Your task to perform on an android device: Open calendar and show me the first week of next month Image 0: 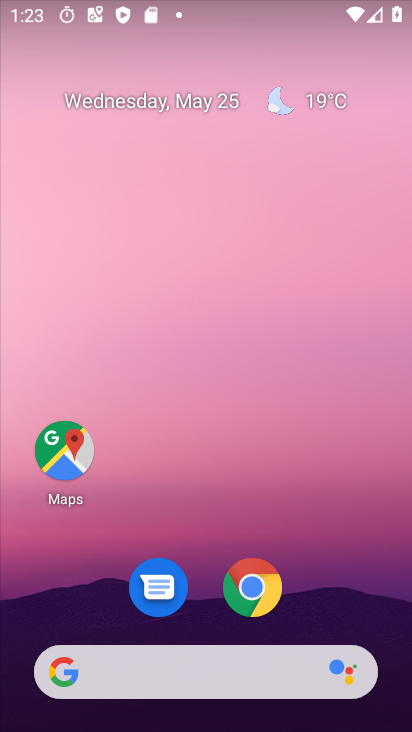
Step 0: drag from (210, 720) to (208, 65)
Your task to perform on an android device: Open calendar and show me the first week of next month Image 1: 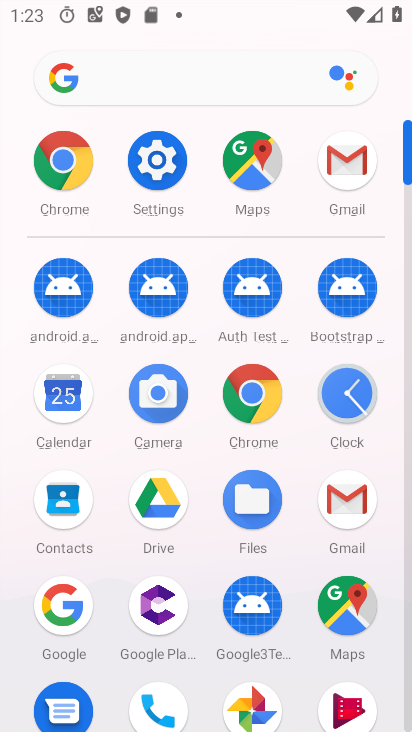
Step 1: click (64, 397)
Your task to perform on an android device: Open calendar and show me the first week of next month Image 2: 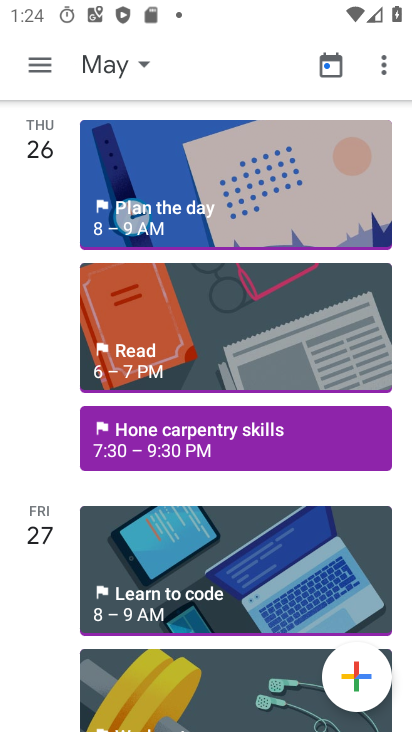
Step 2: click (115, 65)
Your task to perform on an android device: Open calendar and show me the first week of next month Image 3: 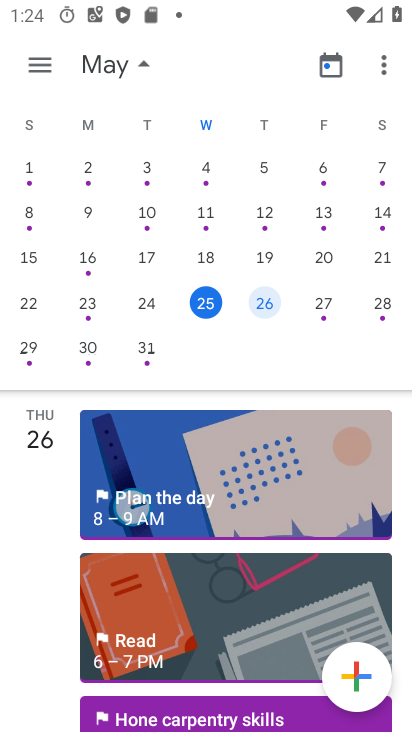
Step 3: drag from (333, 241) to (64, 261)
Your task to perform on an android device: Open calendar and show me the first week of next month Image 4: 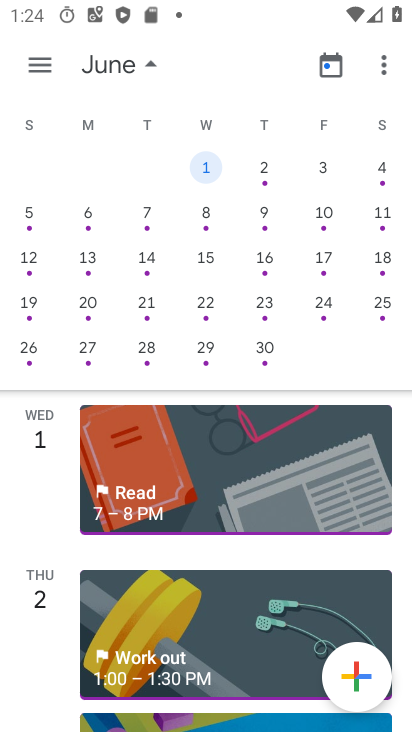
Step 4: click (87, 214)
Your task to perform on an android device: Open calendar and show me the first week of next month Image 5: 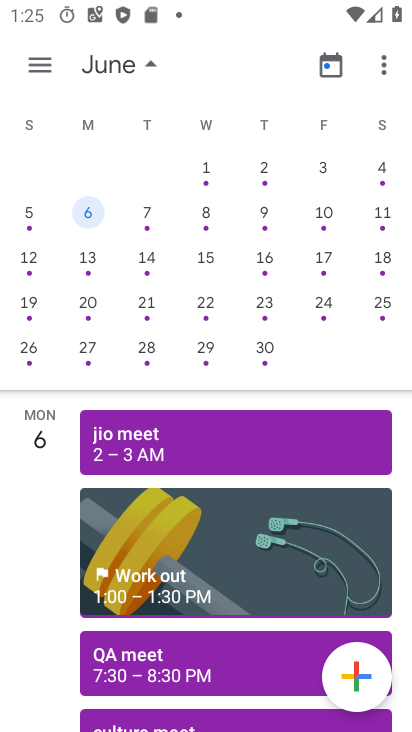
Step 5: click (42, 63)
Your task to perform on an android device: Open calendar and show me the first week of next month Image 6: 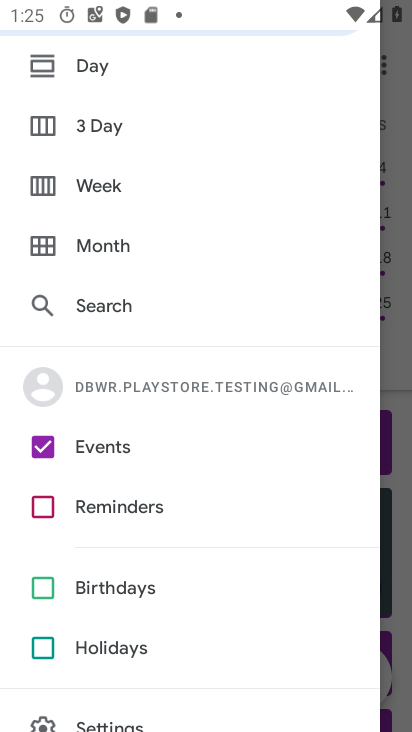
Step 6: click (95, 185)
Your task to perform on an android device: Open calendar and show me the first week of next month Image 7: 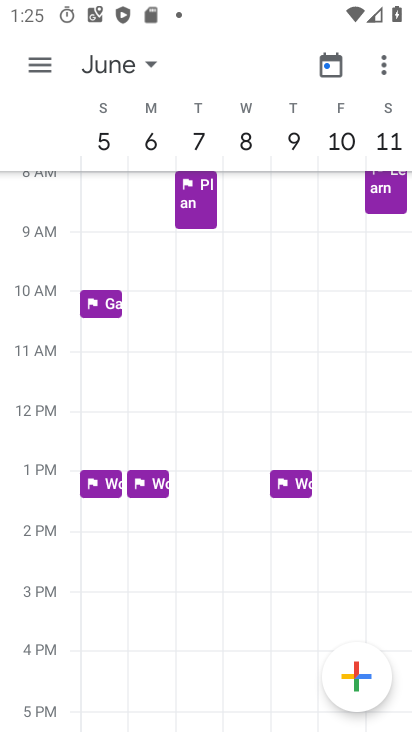
Step 7: task complete